Your task to perform on an android device: toggle wifi Image 0: 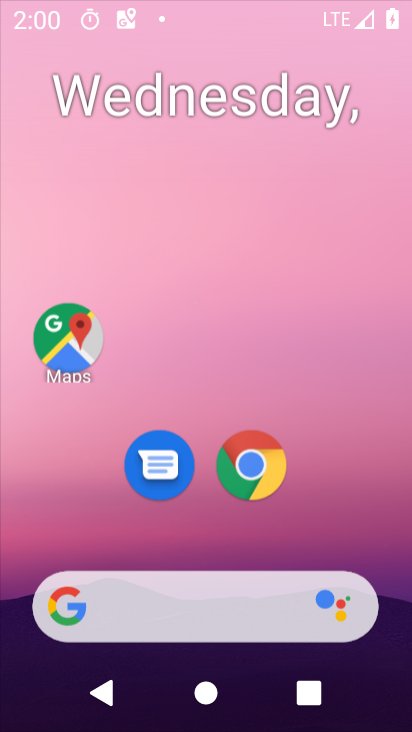
Step 0: click (314, 154)
Your task to perform on an android device: toggle wifi Image 1: 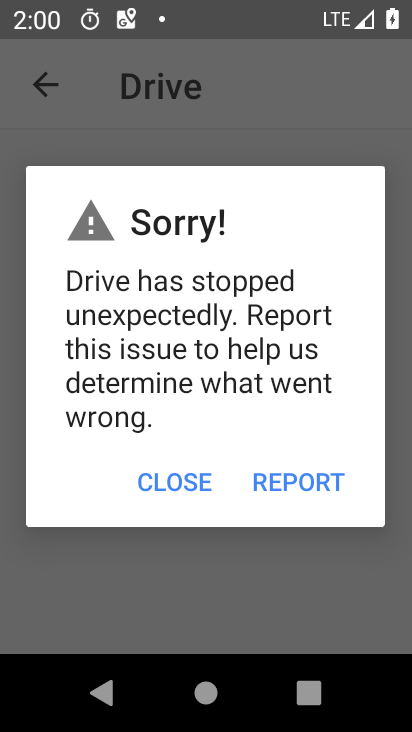
Step 1: press home button
Your task to perform on an android device: toggle wifi Image 2: 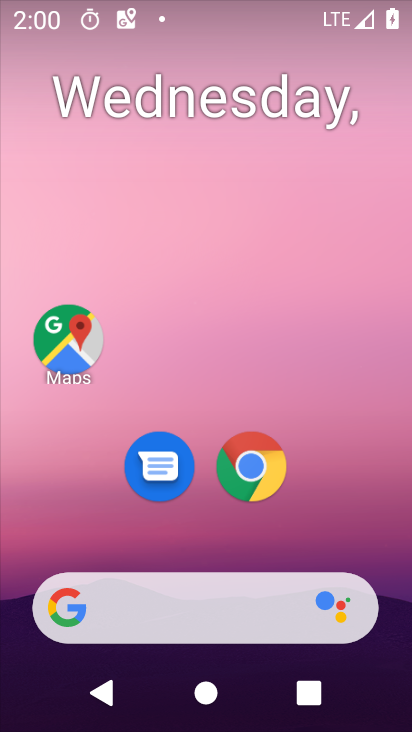
Step 2: drag from (324, 497) to (274, 13)
Your task to perform on an android device: toggle wifi Image 3: 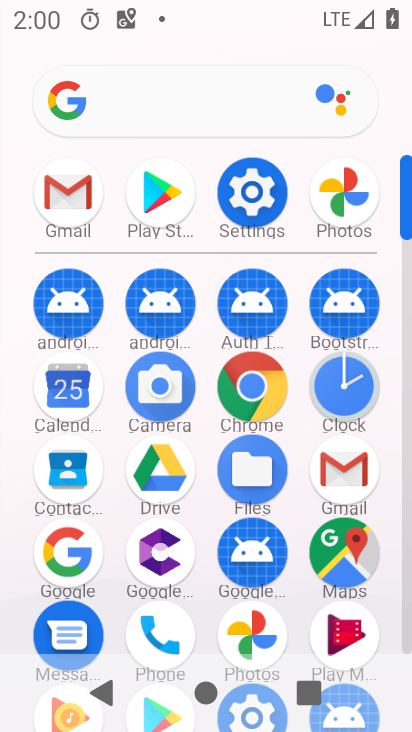
Step 3: click (267, 200)
Your task to perform on an android device: toggle wifi Image 4: 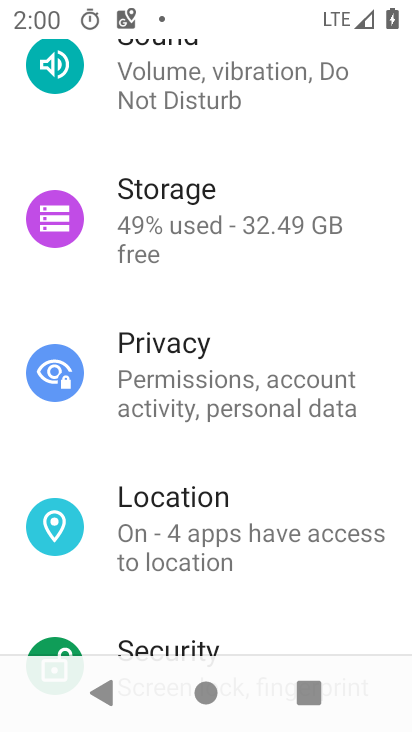
Step 4: drag from (246, 173) to (229, 569)
Your task to perform on an android device: toggle wifi Image 5: 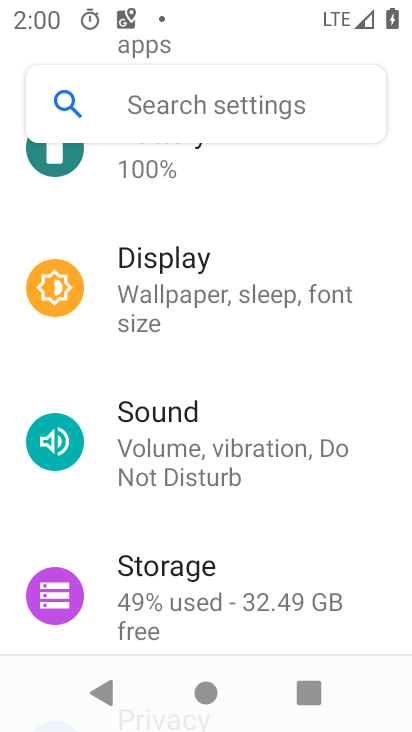
Step 5: drag from (189, 245) to (195, 561)
Your task to perform on an android device: toggle wifi Image 6: 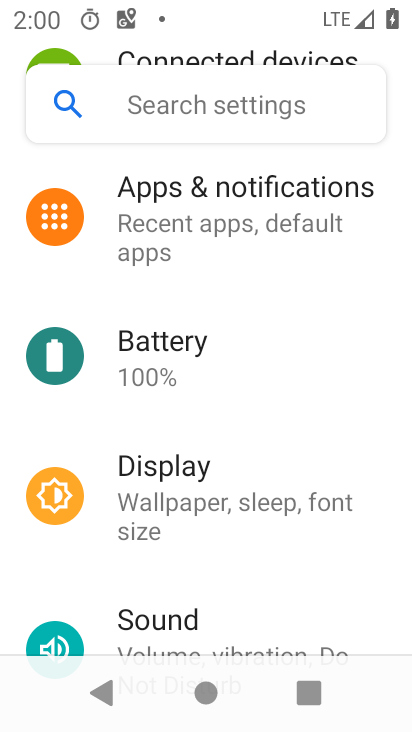
Step 6: drag from (172, 223) to (139, 580)
Your task to perform on an android device: toggle wifi Image 7: 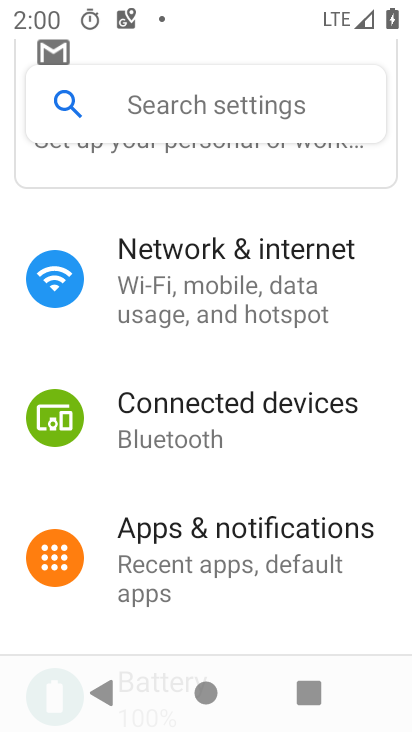
Step 7: click (154, 274)
Your task to perform on an android device: toggle wifi Image 8: 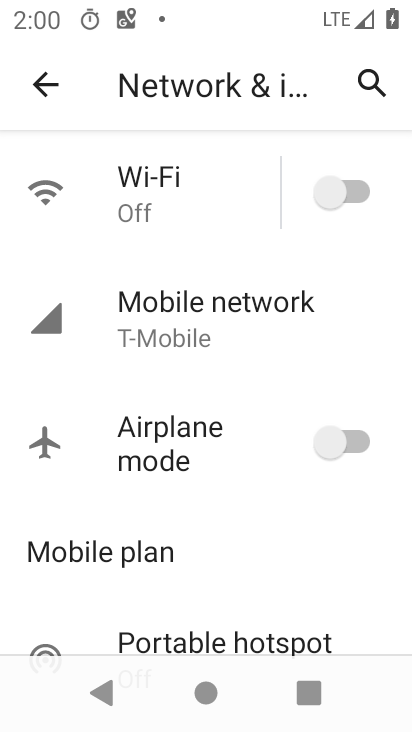
Step 8: click (278, 191)
Your task to perform on an android device: toggle wifi Image 9: 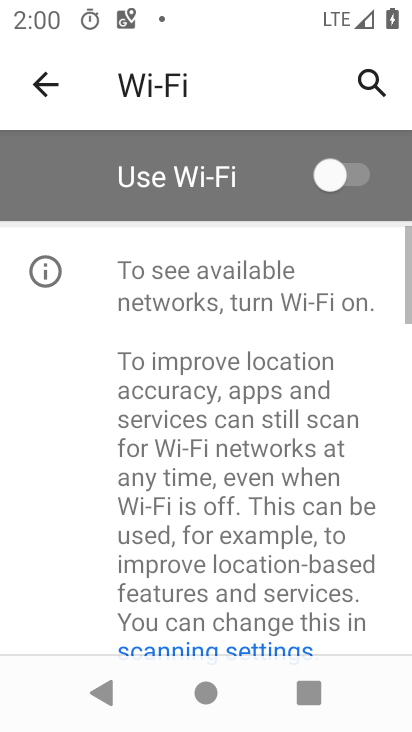
Step 9: click (337, 181)
Your task to perform on an android device: toggle wifi Image 10: 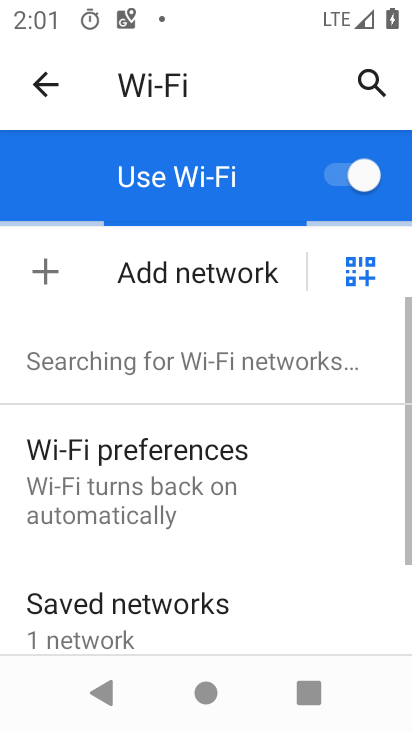
Step 10: task complete